Your task to perform on an android device: Do I have any events today? Image 0: 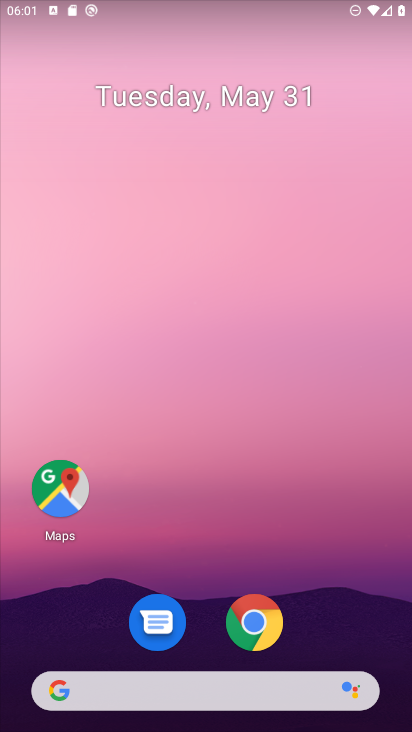
Step 0: drag from (255, 696) to (257, 30)
Your task to perform on an android device: Do I have any events today? Image 1: 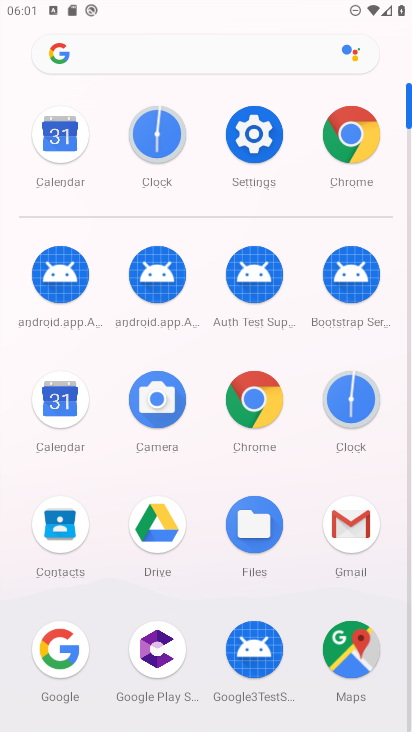
Step 1: click (76, 403)
Your task to perform on an android device: Do I have any events today? Image 2: 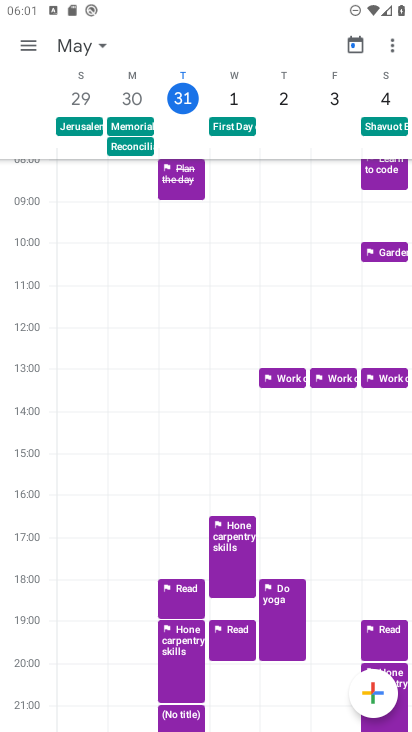
Step 2: task complete